Your task to perform on an android device: Go to Yahoo.com Image 0: 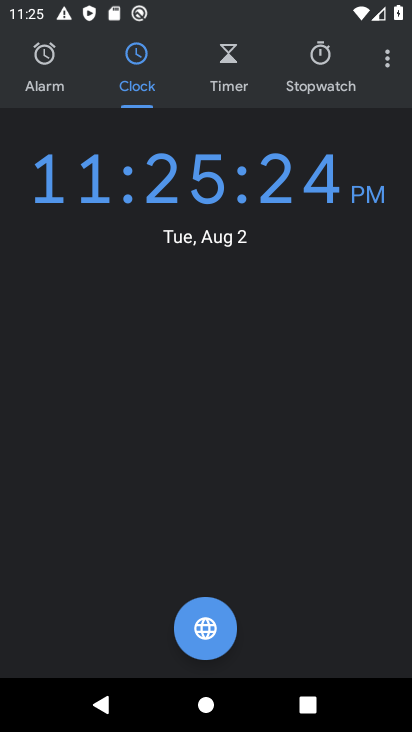
Step 0: press home button
Your task to perform on an android device: Go to Yahoo.com Image 1: 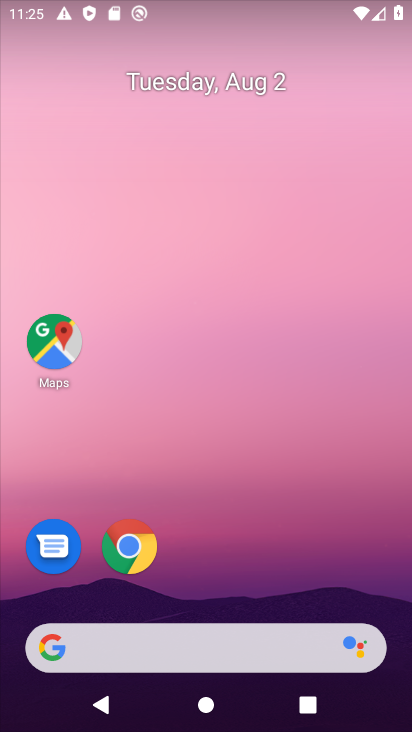
Step 1: click (151, 546)
Your task to perform on an android device: Go to Yahoo.com Image 2: 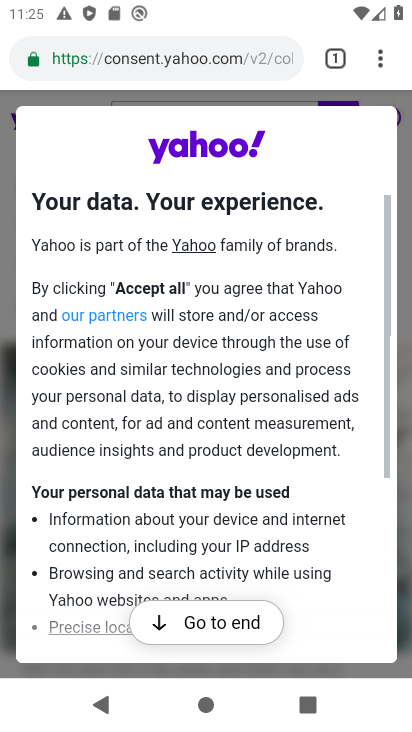
Step 2: task complete